Your task to perform on an android device: toggle improve location accuracy Image 0: 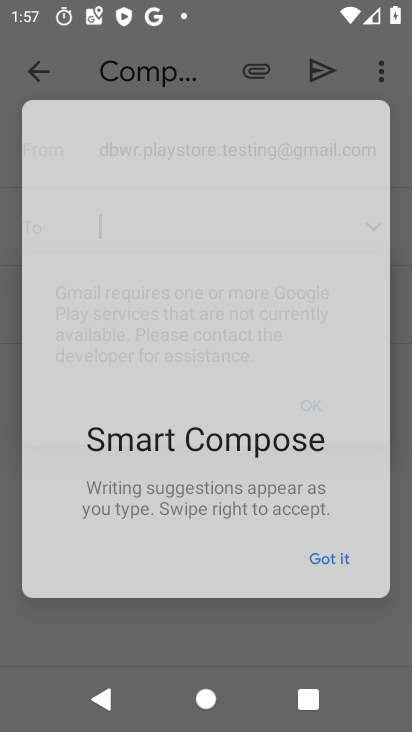
Step 0: press home button
Your task to perform on an android device: toggle improve location accuracy Image 1: 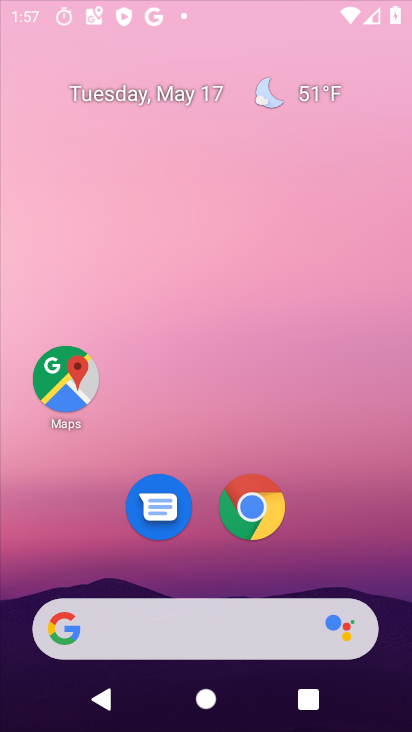
Step 1: press home button
Your task to perform on an android device: toggle improve location accuracy Image 2: 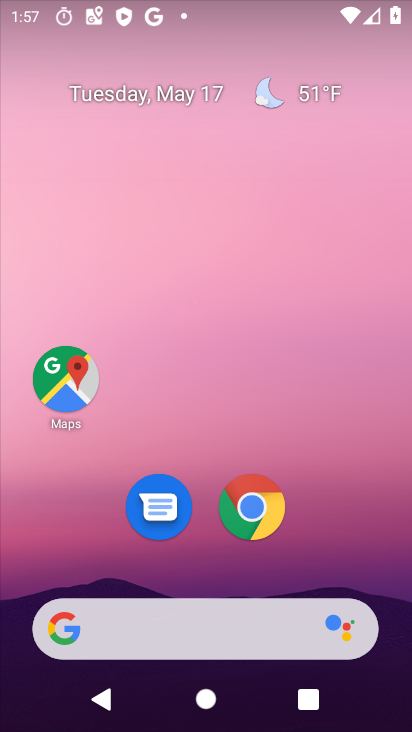
Step 2: drag from (214, 537) to (265, 76)
Your task to perform on an android device: toggle improve location accuracy Image 3: 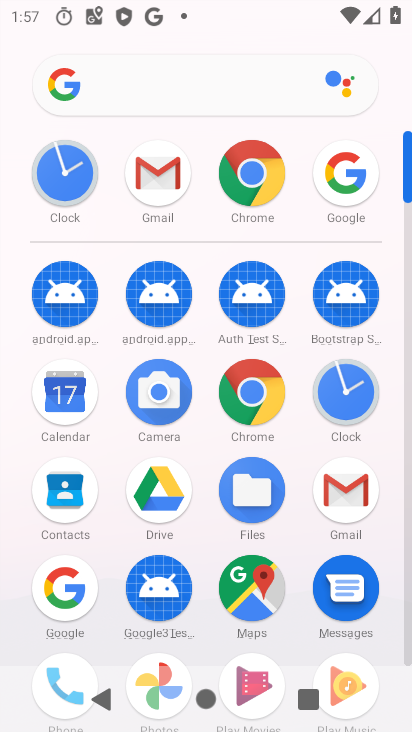
Step 3: drag from (99, 562) to (128, 232)
Your task to perform on an android device: toggle improve location accuracy Image 4: 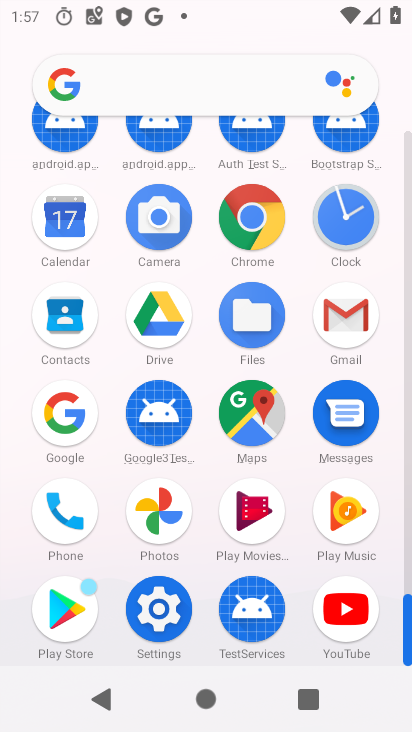
Step 4: click (166, 619)
Your task to perform on an android device: toggle improve location accuracy Image 5: 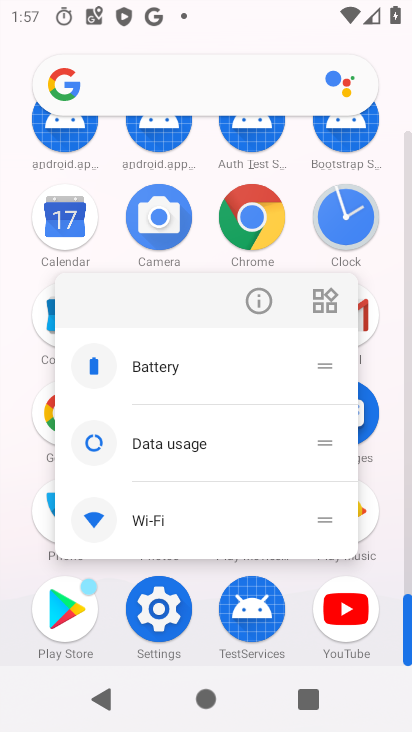
Step 5: click (156, 612)
Your task to perform on an android device: toggle improve location accuracy Image 6: 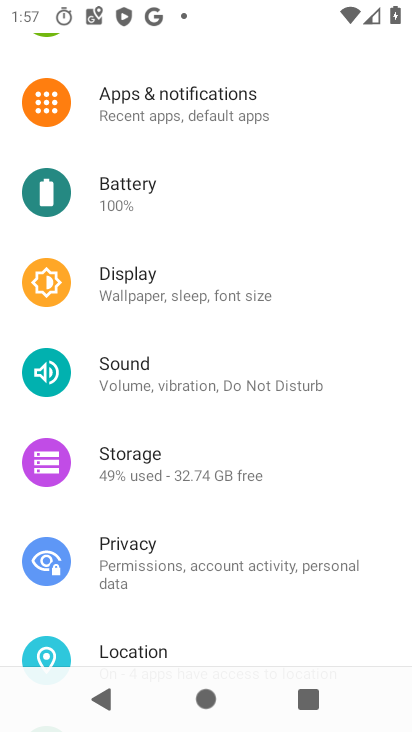
Step 6: drag from (183, 593) to (202, 398)
Your task to perform on an android device: toggle improve location accuracy Image 7: 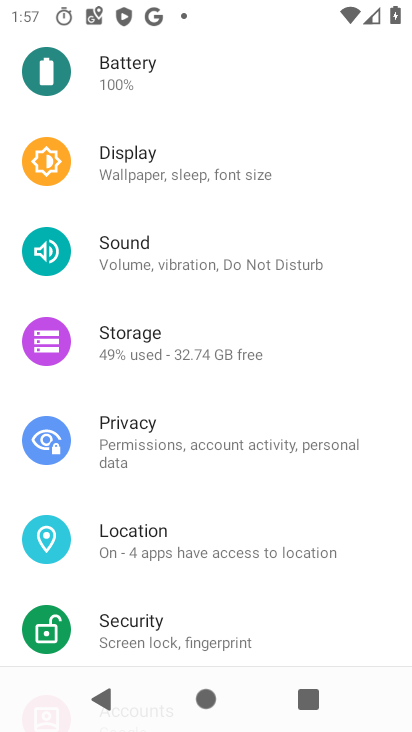
Step 7: click (169, 552)
Your task to perform on an android device: toggle improve location accuracy Image 8: 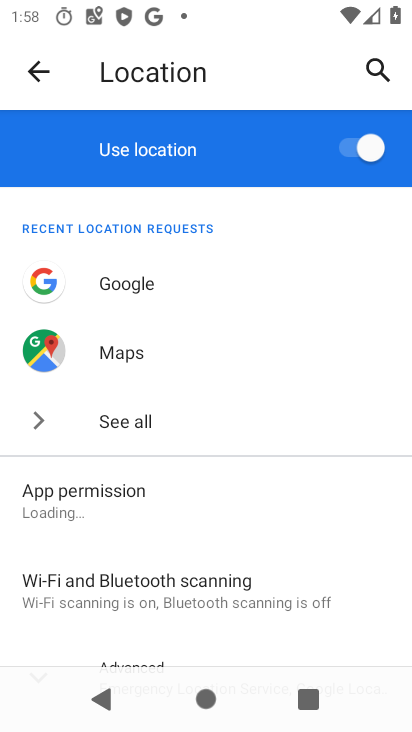
Step 8: drag from (162, 611) to (210, 354)
Your task to perform on an android device: toggle improve location accuracy Image 9: 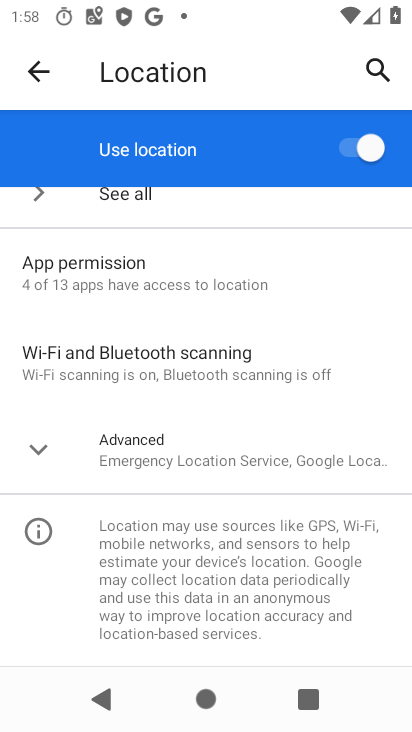
Step 9: click (134, 450)
Your task to perform on an android device: toggle improve location accuracy Image 10: 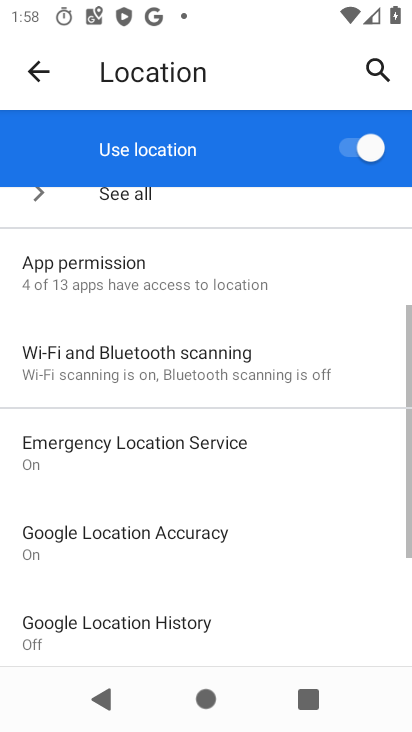
Step 10: drag from (214, 547) to (214, 420)
Your task to perform on an android device: toggle improve location accuracy Image 11: 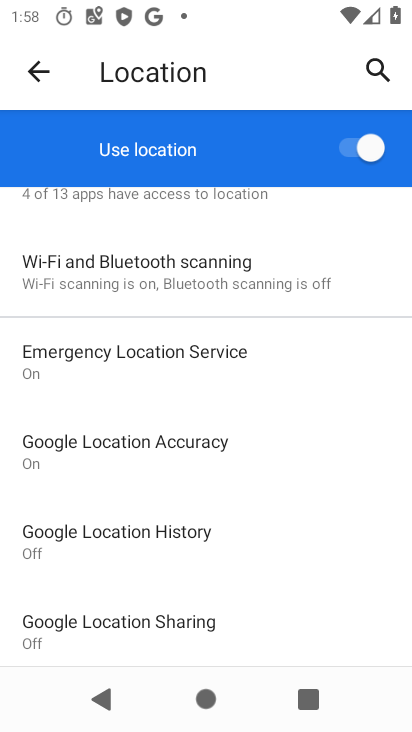
Step 11: click (163, 447)
Your task to perform on an android device: toggle improve location accuracy Image 12: 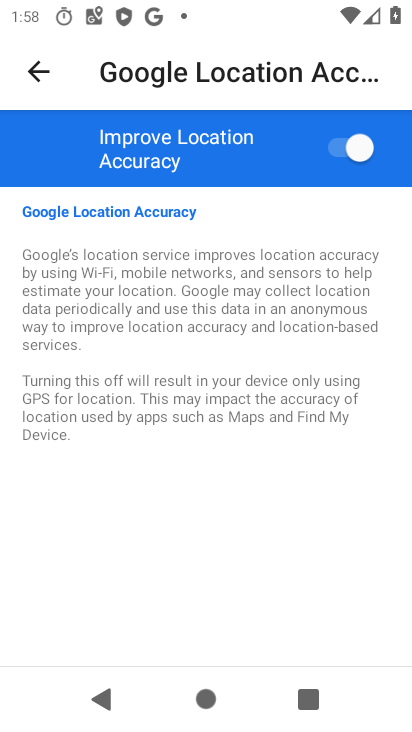
Step 12: click (357, 150)
Your task to perform on an android device: toggle improve location accuracy Image 13: 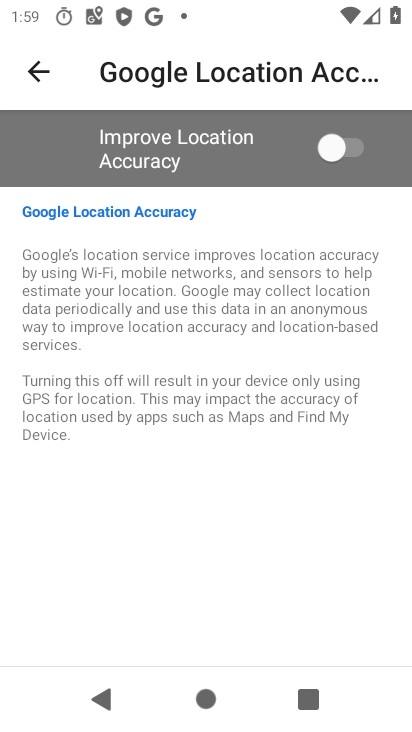
Step 13: task complete